Your task to perform on an android device: What is the recent news? Image 0: 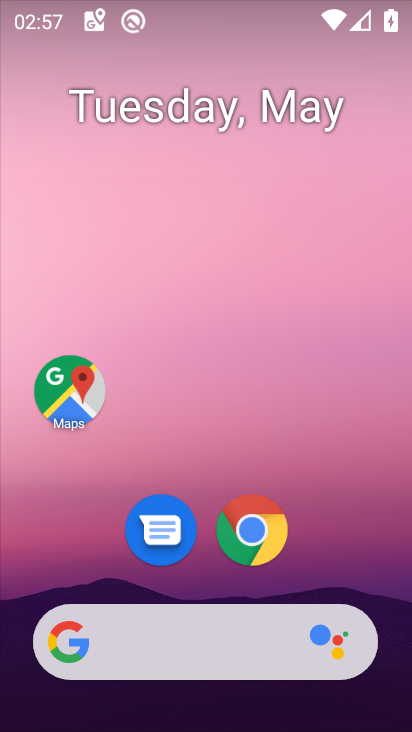
Step 0: click (212, 663)
Your task to perform on an android device: What is the recent news? Image 1: 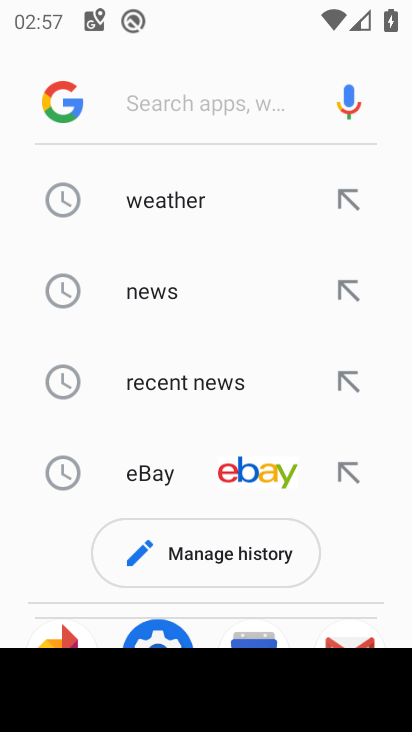
Step 1: click (125, 284)
Your task to perform on an android device: What is the recent news? Image 2: 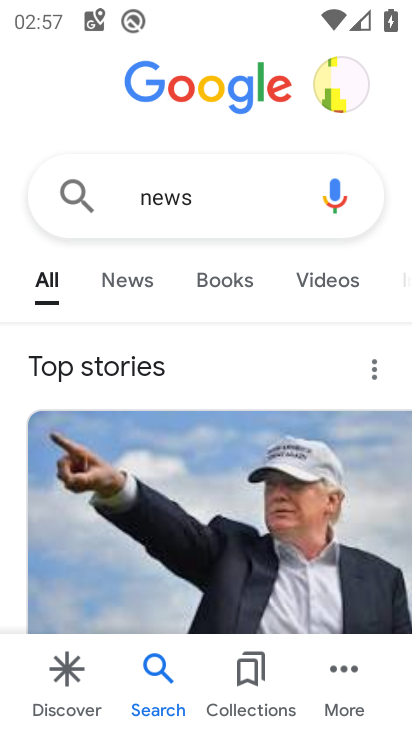
Step 2: task complete